Your task to perform on an android device: Open Google Chrome and open the bookmarks view Image 0: 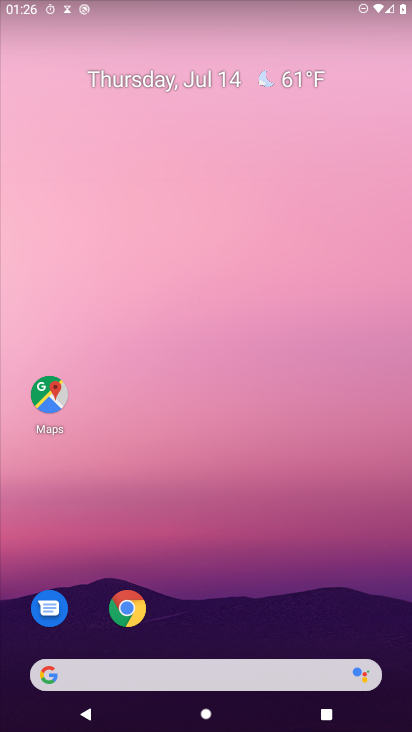
Step 0: press home button
Your task to perform on an android device: Open Google Chrome and open the bookmarks view Image 1: 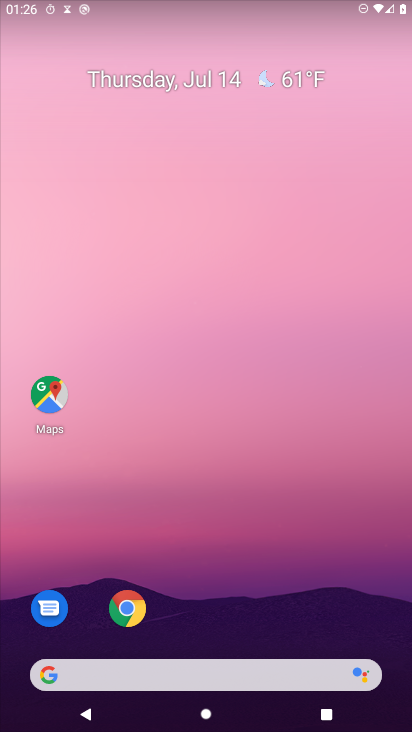
Step 1: click (137, 598)
Your task to perform on an android device: Open Google Chrome and open the bookmarks view Image 2: 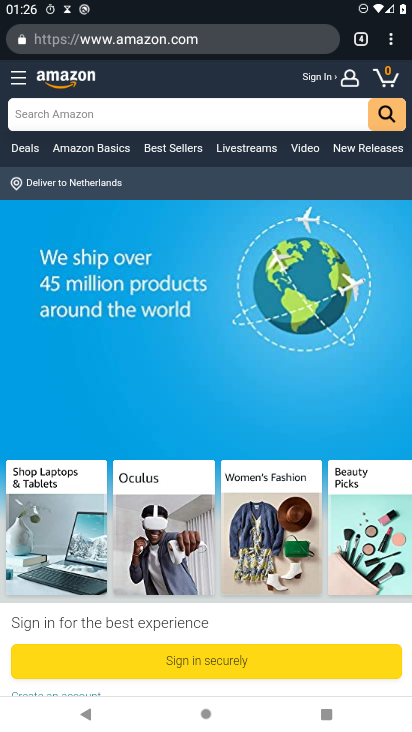
Step 2: task complete